Your task to perform on an android device: Open Amazon Image 0: 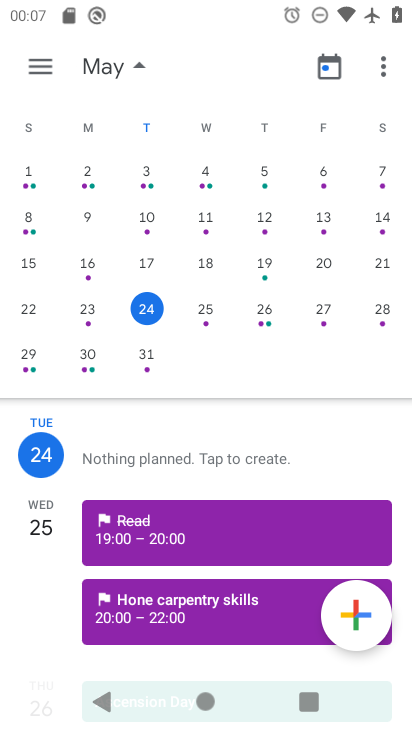
Step 0: press home button
Your task to perform on an android device: Open Amazon Image 1: 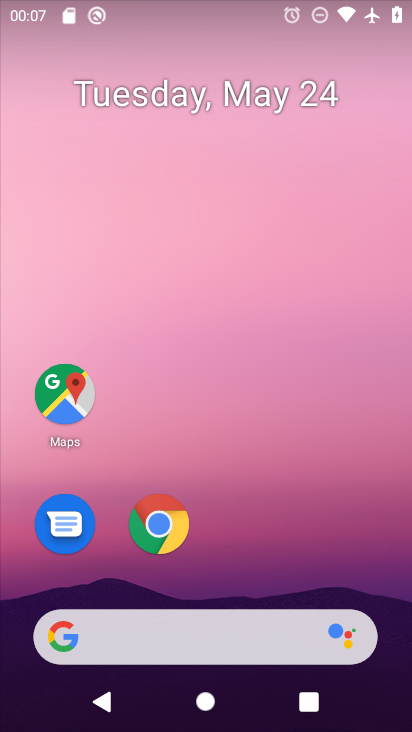
Step 1: click (175, 519)
Your task to perform on an android device: Open Amazon Image 2: 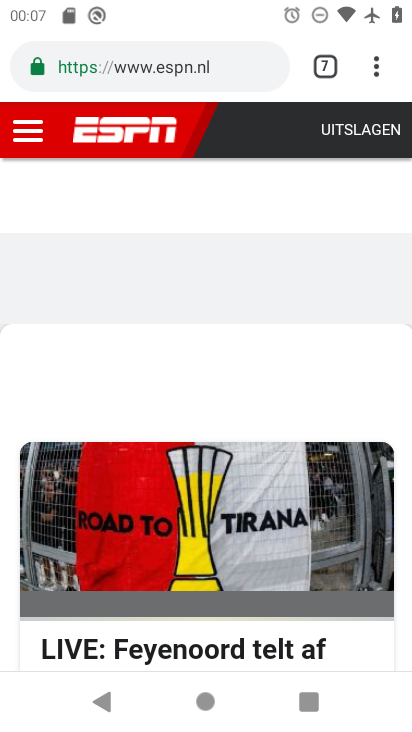
Step 2: click (313, 63)
Your task to perform on an android device: Open Amazon Image 3: 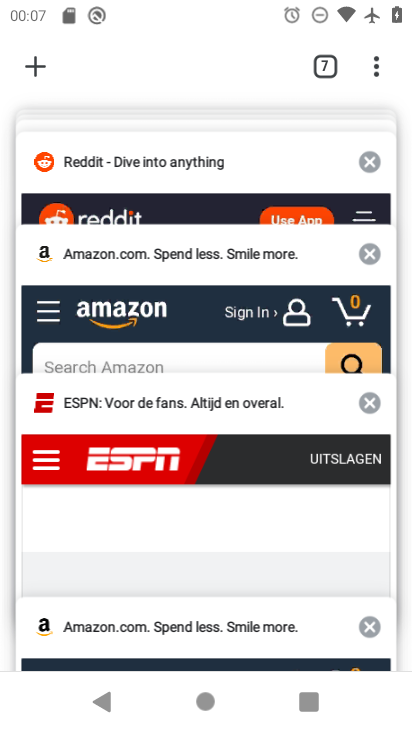
Step 3: click (70, 272)
Your task to perform on an android device: Open Amazon Image 4: 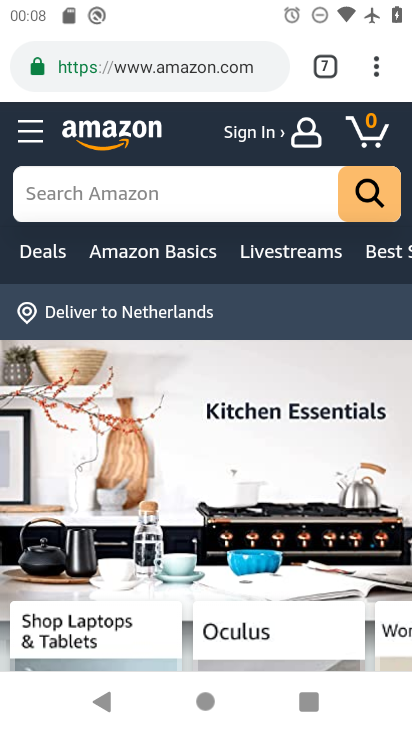
Step 4: task complete